Your task to perform on an android device: What's the weather? Image 0: 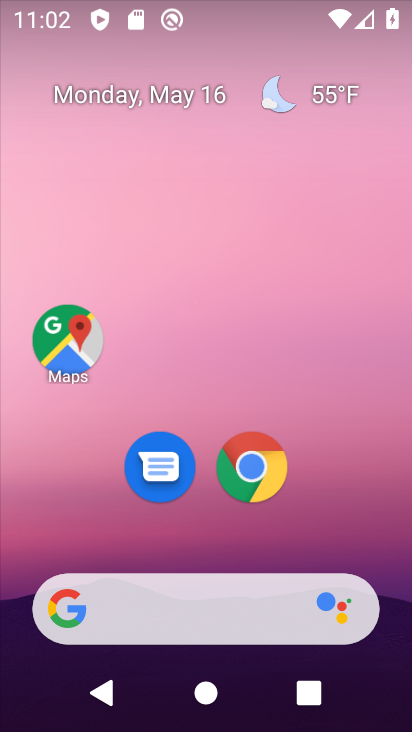
Step 0: click (335, 87)
Your task to perform on an android device: What's the weather? Image 1: 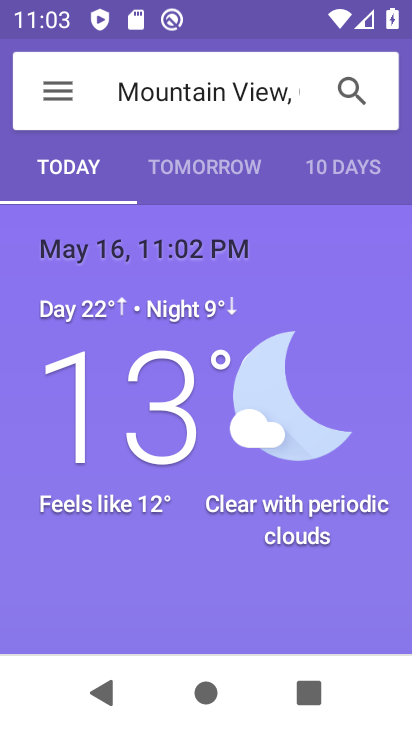
Step 1: task complete